Your task to perform on an android device: allow notifications from all sites in the chrome app Image 0: 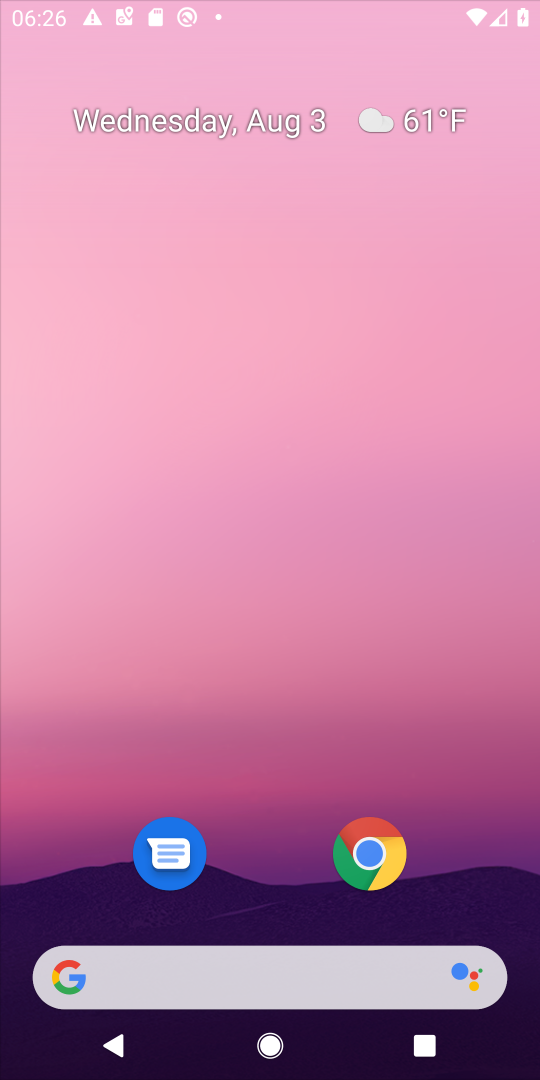
Step 0: press home button
Your task to perform on an android device: allow notifications from all sites in the chrome app Image 1: 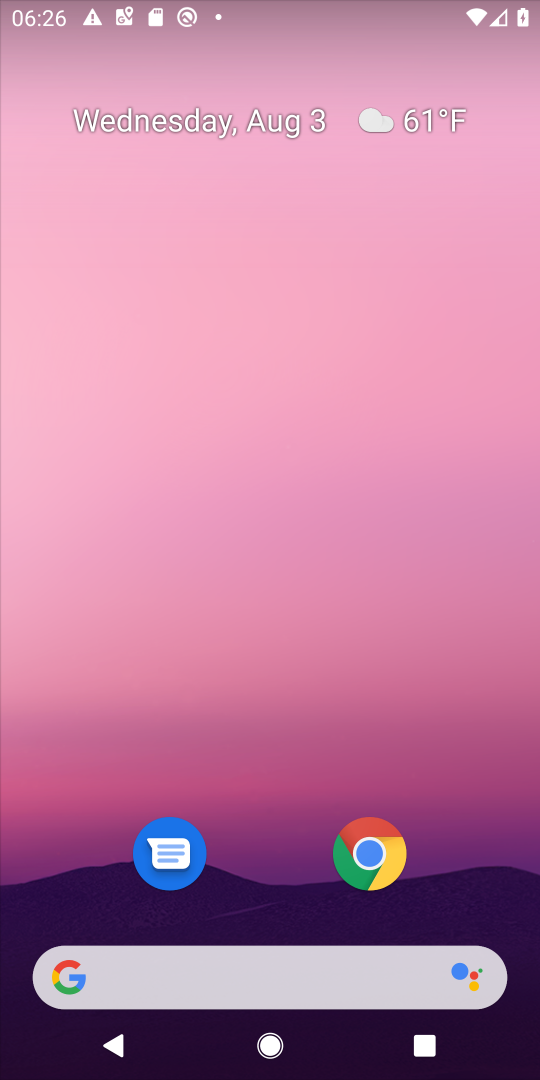
Step 1: drag from (239, 881) to (224, 60)
Your task to perform on an android device: allow notifications from all sites in the chrome app Image 2: 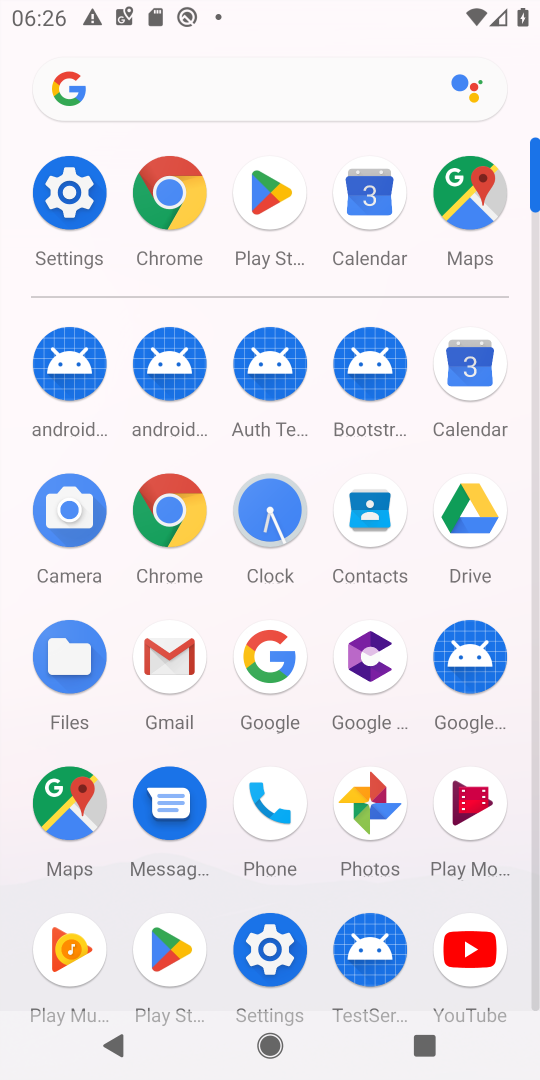
Step 2: click (172, 507)
Your task to perform on an android device: allow notifications from all sites in the chrome app Image 3: 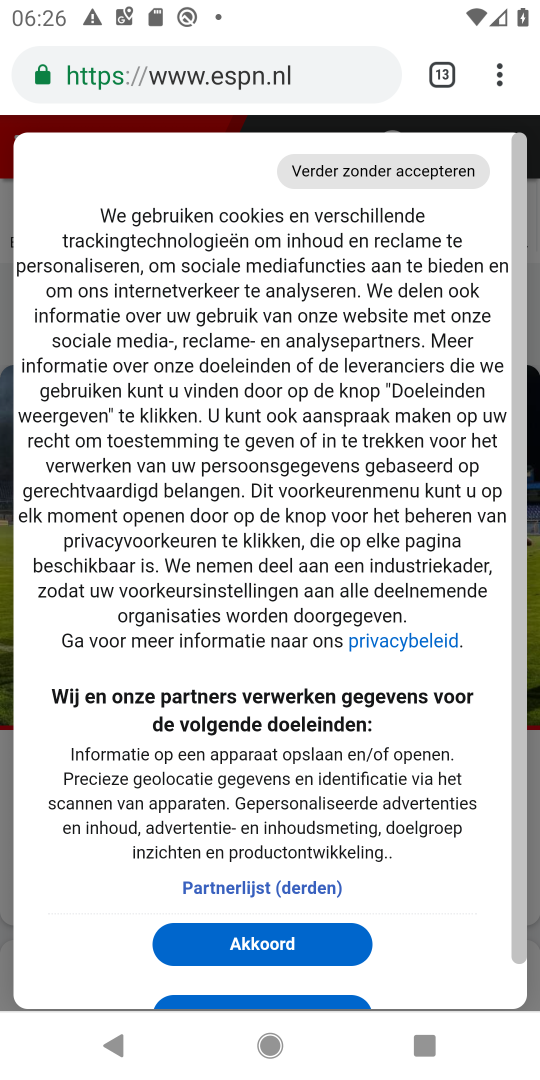
Step 3: click (499, 85)
Your task to perform on an android device: allow notifications from all sites in the chrome app Image 4: 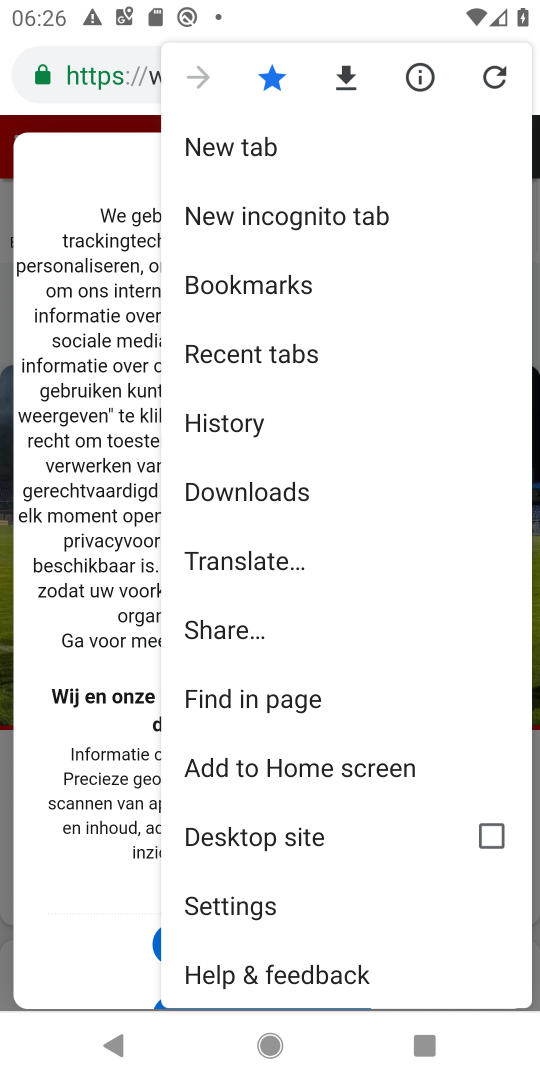
Step 4: click (245, 902)
Your task to perform on an android device: allow notifications from all sites in the chrome app Image 5: 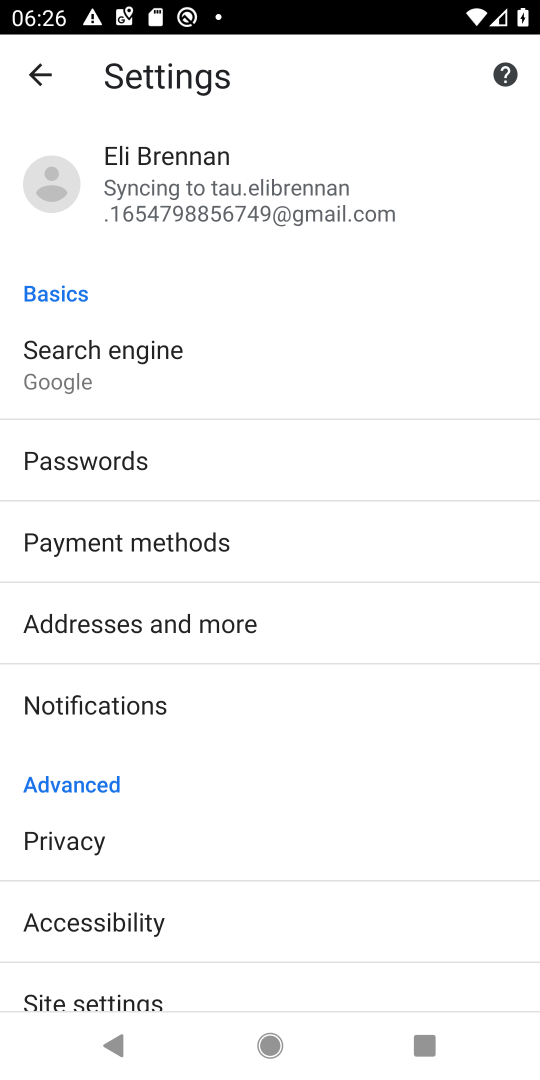
Step 5: click (88, 1004)
Your task to perform on an android device: allow notifications from all sites in the chrome app Image 6: 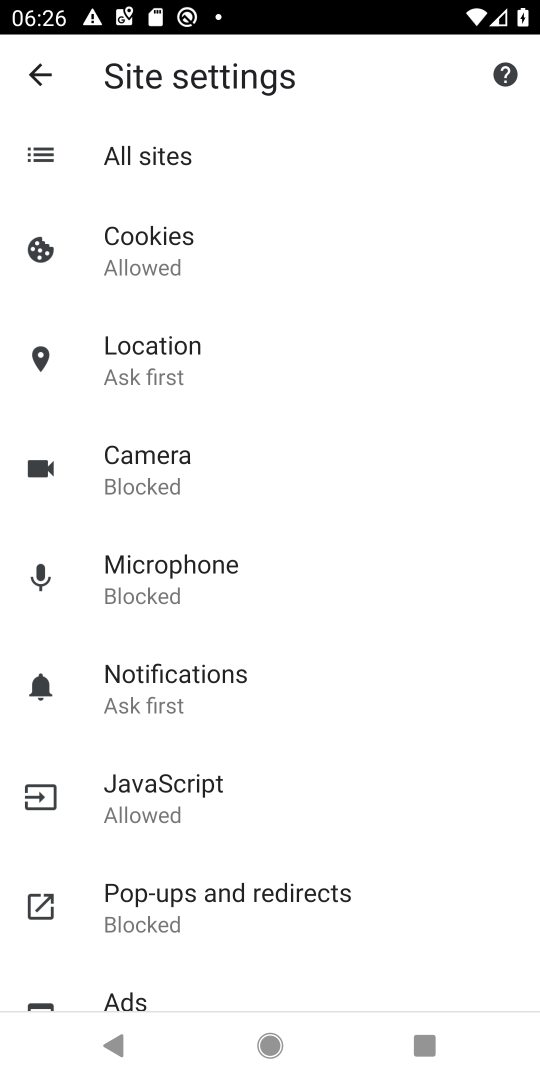
Step 6: click (159, 695)
Your task to perform on an android device: allow notifications from all sites in the chrome app Image 7: 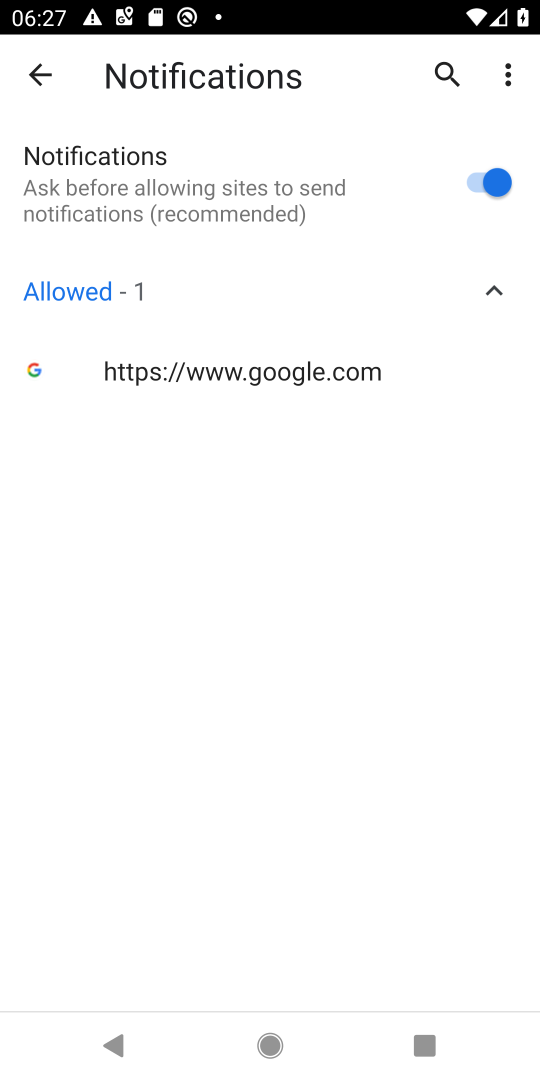
Step 7: task complete